Your task to perform on an android device: Go to internet settings Image 0: 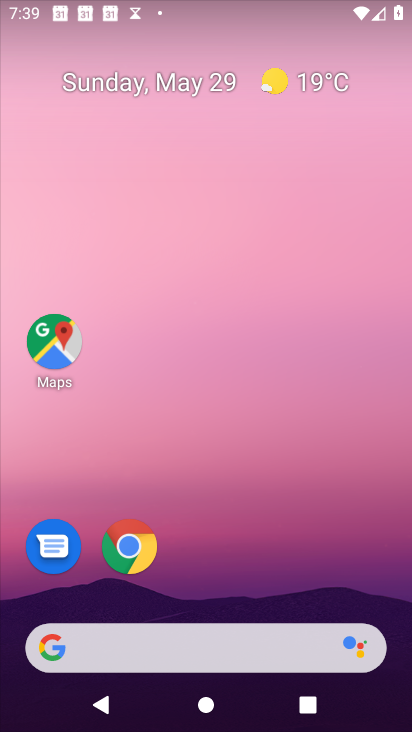
Step 0: drag from (227, 560) to (243, 87)
Your task to perform on an android device: Go to internet settings Image 1: 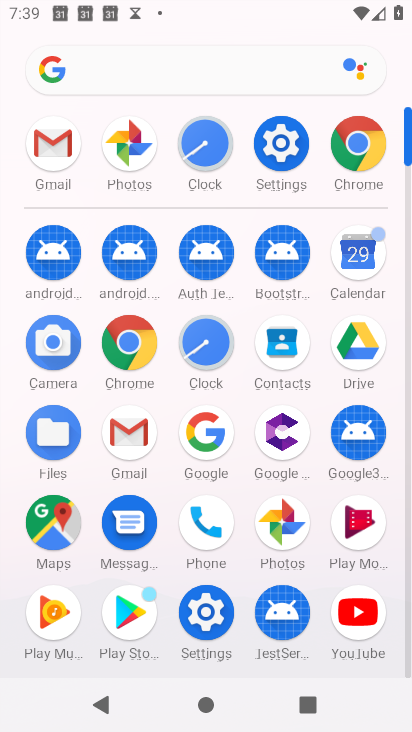
Step 1: click (280, 152)
Your task to perform on an android device: Go to internet settings Image 2: 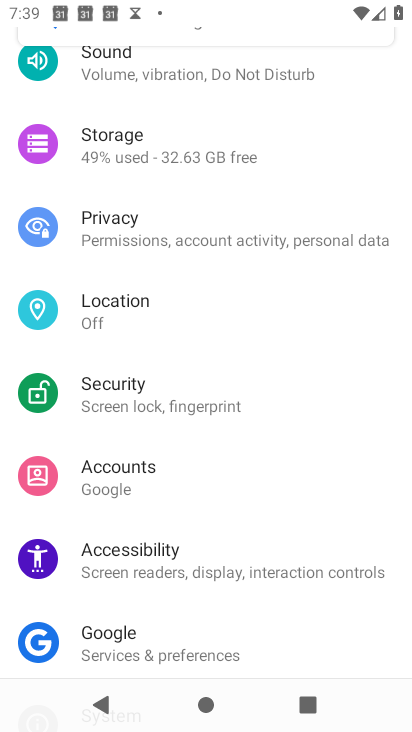
Step 2: drag from (120, 94) to (149, 522)
Your task to perform on an android device: Go to internet settings Image 3: 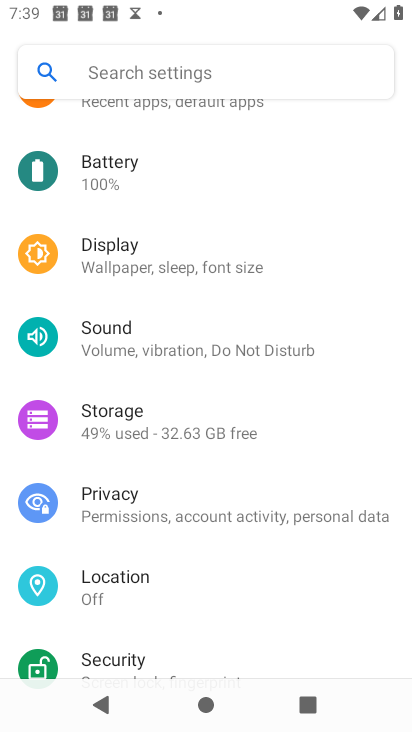
Step 3: drag from (174, 569) to (186, 163)
Your task to perform on an android device: Go to internet settings Image 4: 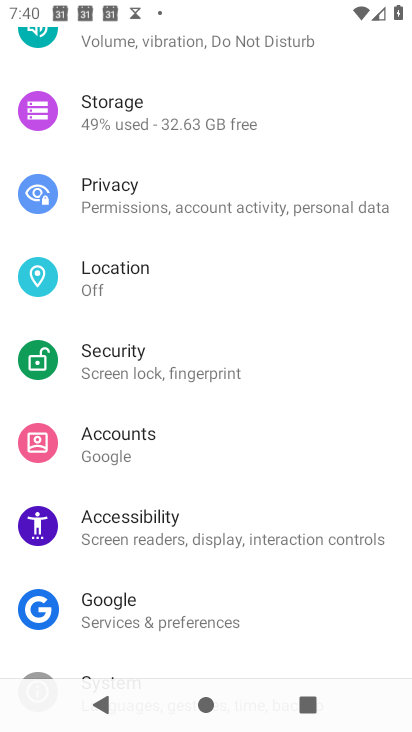
Step 4: drag from (271, 180) to (182, 731)
Your task to perform on an android device: Go to internet settings Image 5: 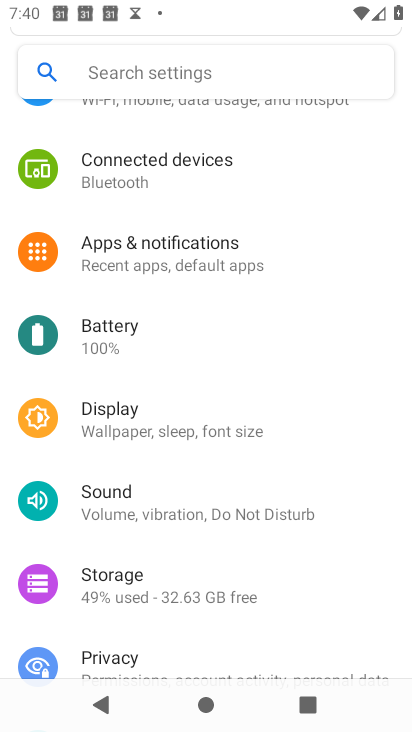
Step 5: drag from (219, 223) to (240, 669)
Your task to perform on an android device: Go to internet settings Image 6: 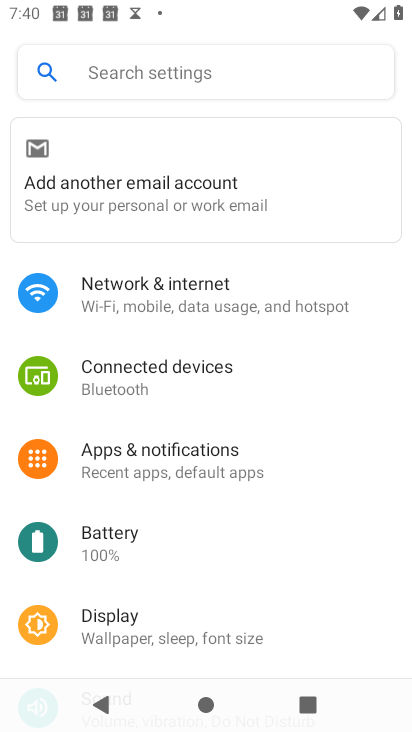
Step 6: click (168, 305)
Your task to perform on an android device: Go to internet settings Image 7: 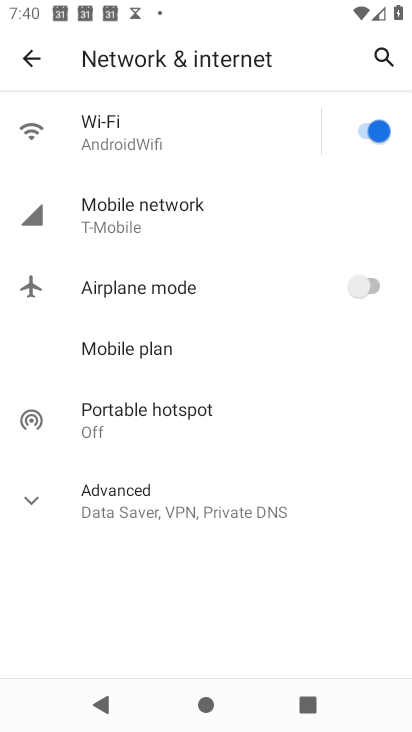
Step 7: task complete